Your task to perform on an android device: Go to eBay Image 0: 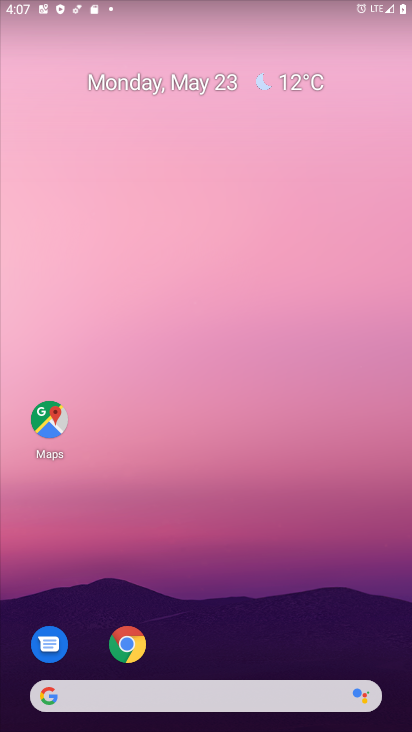
Step 0: click (138, 645)
Your task to perform on an android device: Go to eBay Image 1: 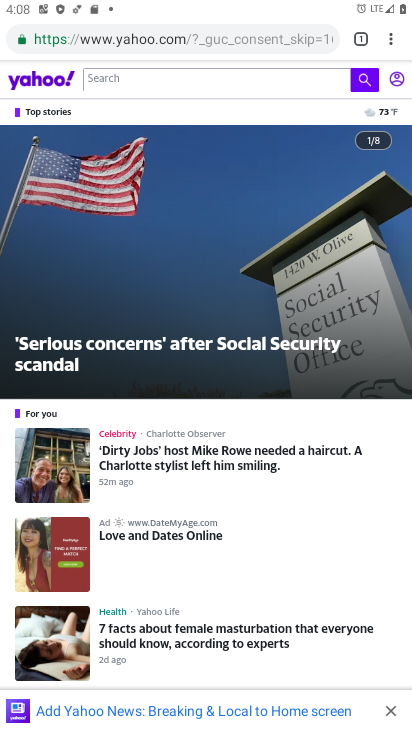
Step 1: click (367, 35)
Your task to perform on an android device: Go to eBay Image 2: 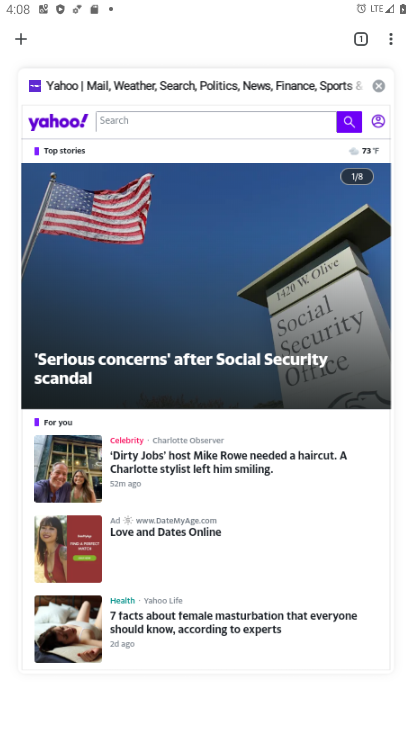
Step 2: click (22, 39)
Your task to perform on an android device: Go to eBay Image 3: 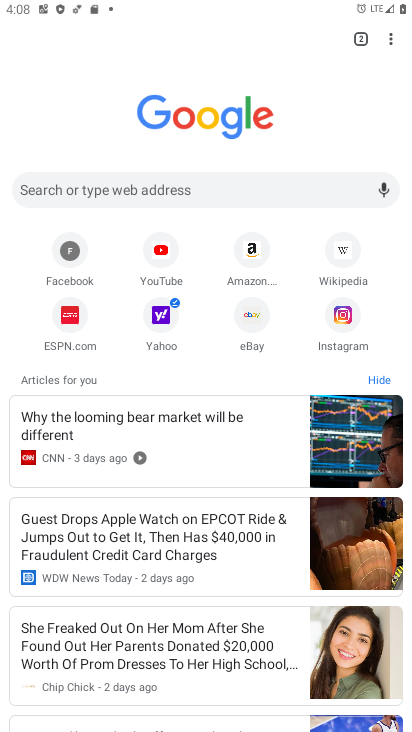
Step 3: click (256, 305)
Your task to perform on an android device: Go to eBay Image 4: 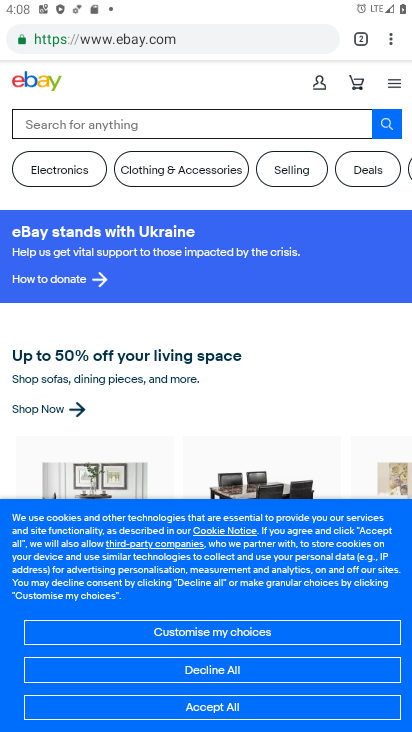
Step 4: task complete